Your task to perform on an android device: choose inbox layout in the gmail app Image 0: 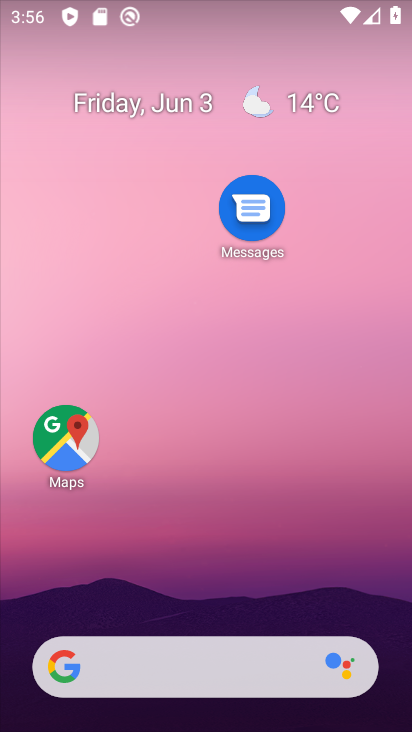
Step 0: drag from (197, 588) to (281, 119)
Your task to perform on an android device: choose inbox layout in the gmail app Image 1: 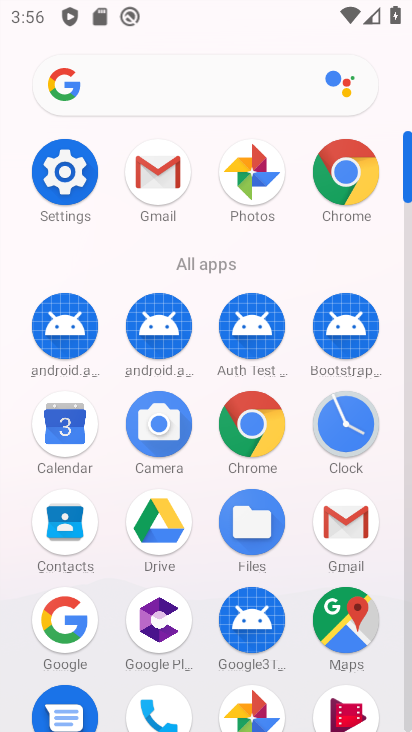
Step 1: click (156, 183)
Your task to perform on an android device: choose inbox layout in the gmail app Image 2: 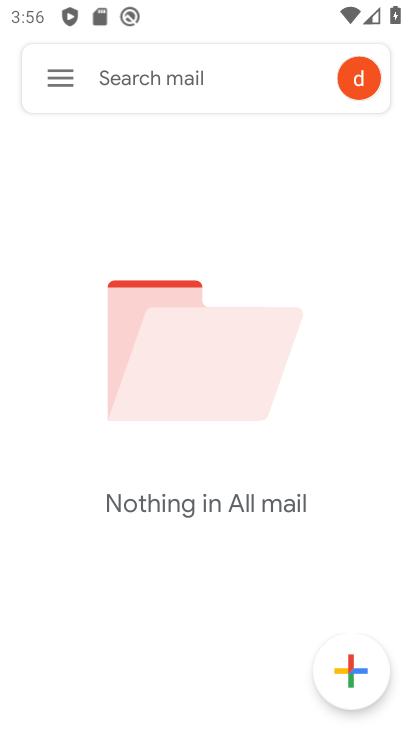
Step 2: click (60, 73)
Your task to perform on an android device: choose inbox layout in the gmail app Image 3: 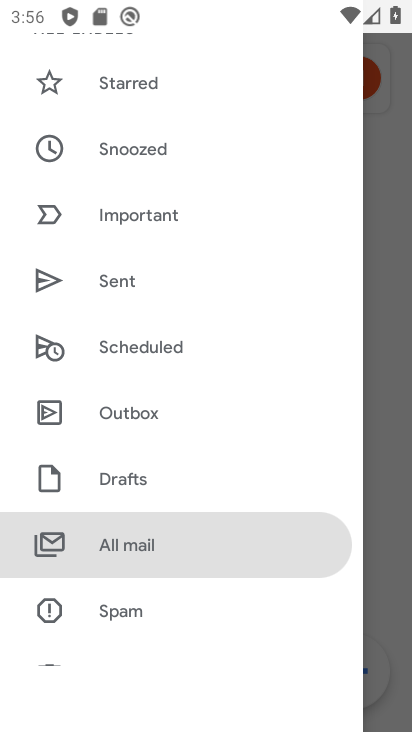
Step 3: click (183, 263)
Your task to perform on an android device: choose inbox layout in the gmail app Image 4: 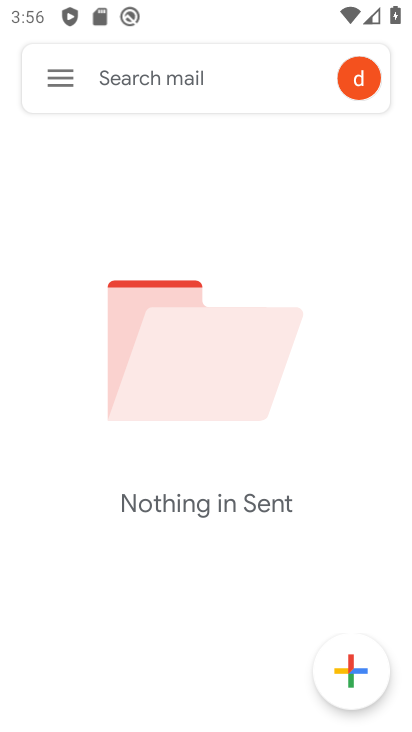
Step 4: click (66, 79)
Your task to perform on an android device: choose inbox layout in the gmail app Image 5: 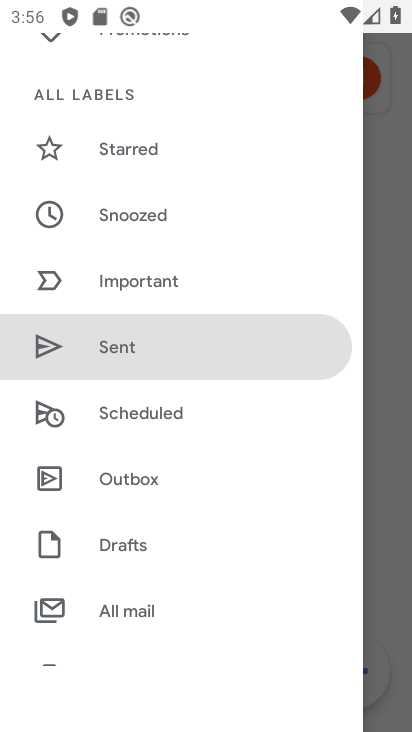
Step 5: drag from (178, 460) to (217, 284)
Your task to perform on an android device: choose inbox layout in the gmail app Image 6: 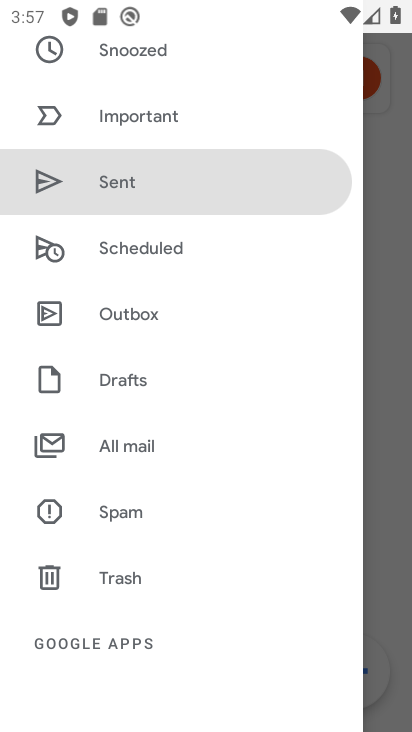
Step 6: drag from (163, 533) to (239, 95)
Your task to perform on an android device: choose inbox layout in the gmail app Image 7: 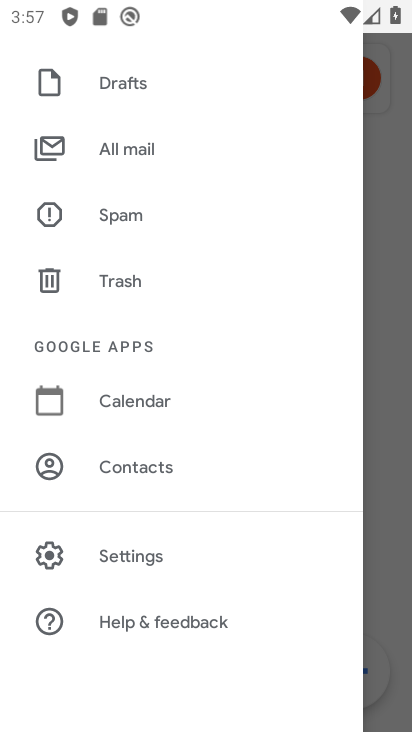
Step 7: click (106, 558)
Your task to perform on an android device: choose inbox layout in the gmail app Image 8: 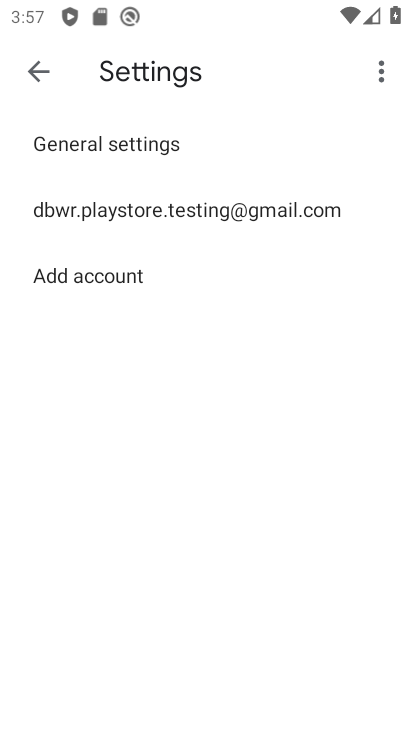
Step 8: click (225, 215)
Your task to perform on an android device: choose inbox layout in the gmail app Image 9: 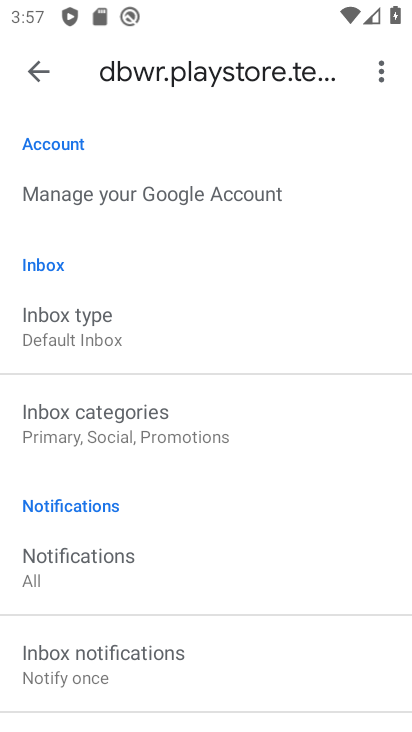
Step 9: drag from (175, 649) to (201, 422)
Your task to perform on an android device: choose inbox layout in the gmail app Image 10: 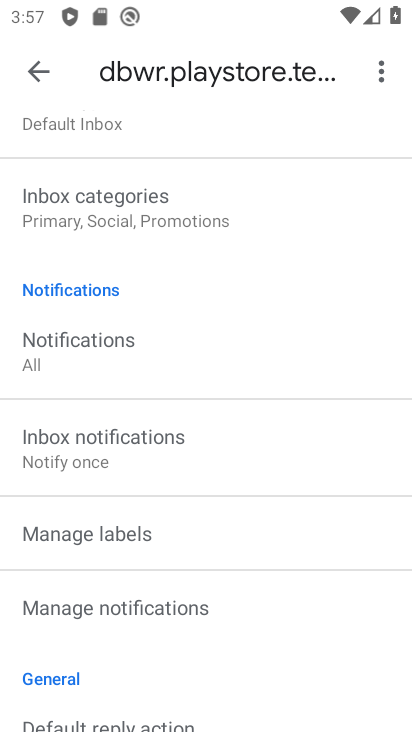
Step 10: drag from (182, 586) to (239, 351)
Your task to perform on an android device: choose inbox layout in the gmail app Image 11: 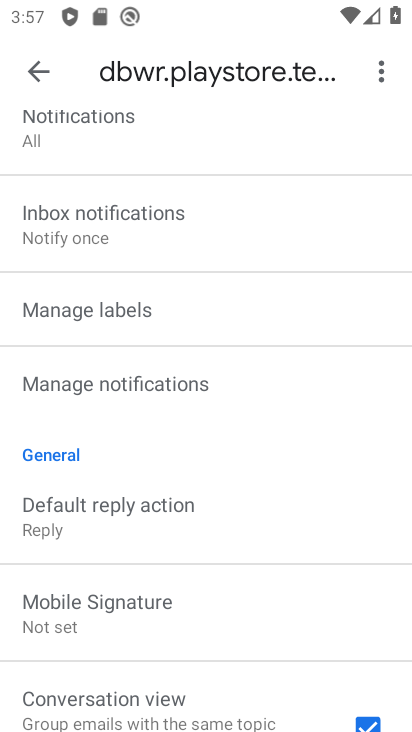
Step 11: drag from (139, 590) to (161, 307)
Your task to perform on an android device: choose inbox layout in the gmail app Image 12: 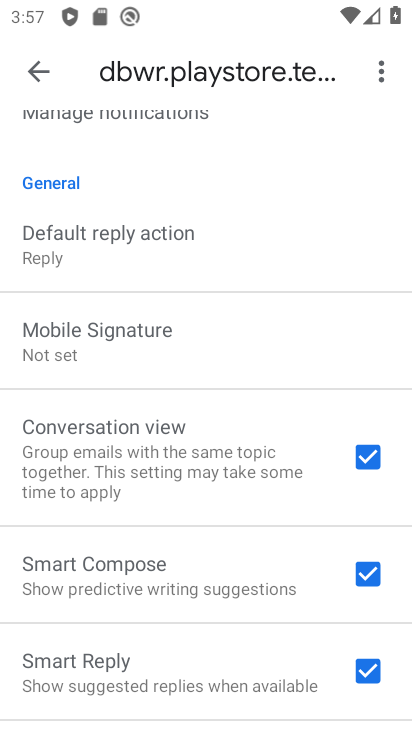
Step 12: drag from (157, 611) to (196, 196)
Your task to perform on an android device: choose inbox layout in the gmail app Image 13: 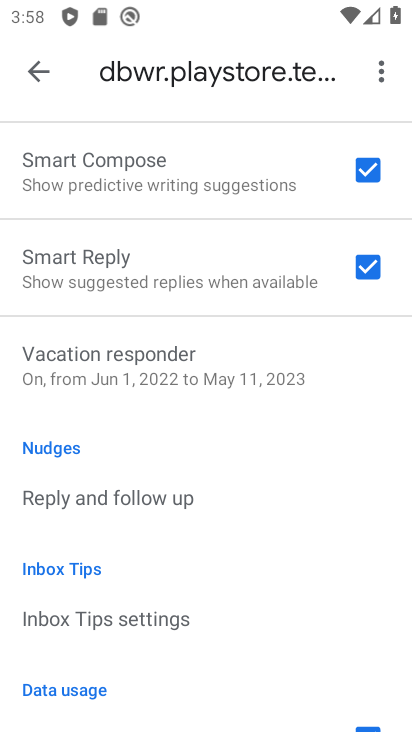
Step 13: drag from (157, 217) to (111, 415)
Your task to perform on an android device: choose inbox layout in the gmail app Image 14: 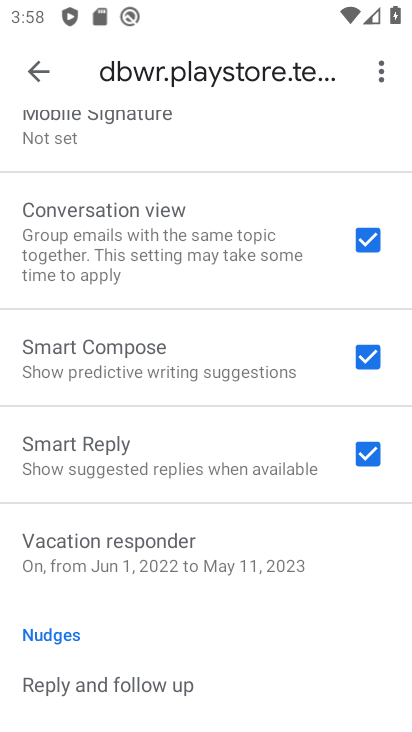
Step 14: drag from (168, 159) to (144, 413)
Your task to perform on an android device: choose inbox layout in the gmail app Image 15: 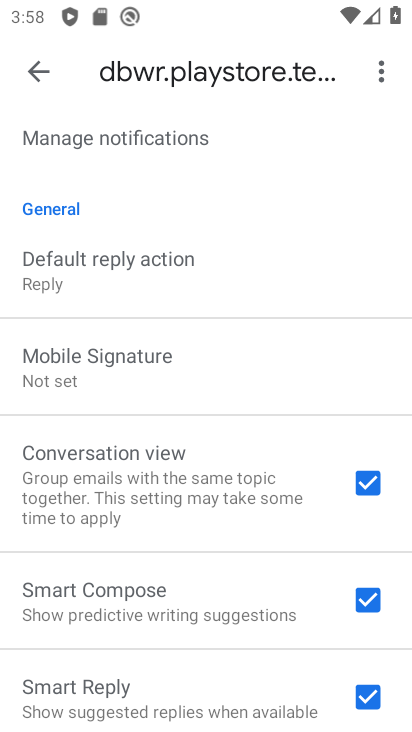
Step 15: drag from (182, 199) to (136, 402)
Your task to perform on an android device: choose inbox layout in the gmail app Image 16: 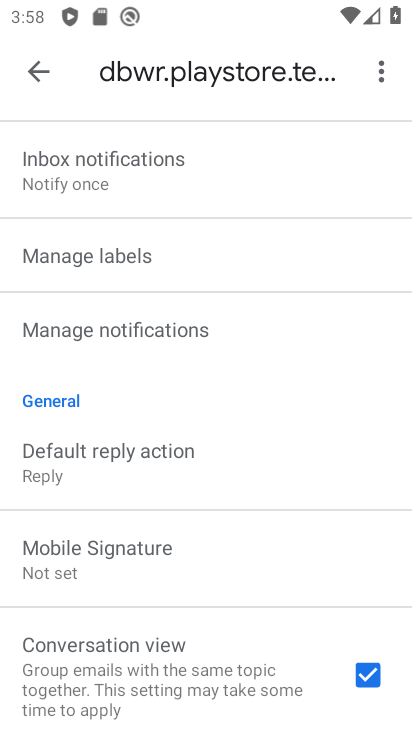
Step 16: drag from (165, 303) to (137, 513)
Your task to perform on an android device: choose inbox layout in the gmail app Image 17: 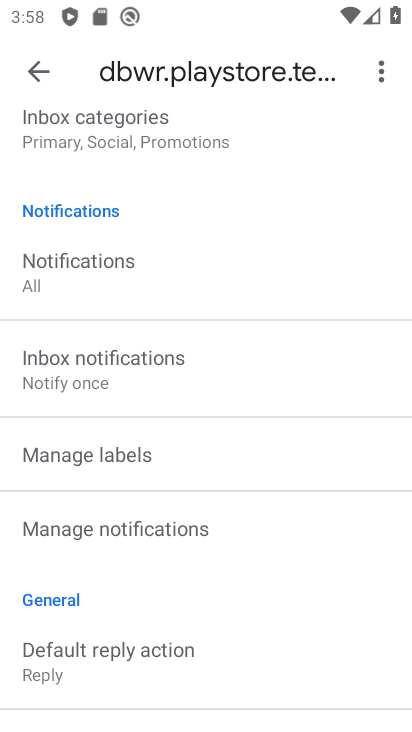
Step 17: drag from (151, 191) to (136, 466)
Your task to perform on an android device: choose inbox layout in the gmail app Image 18: 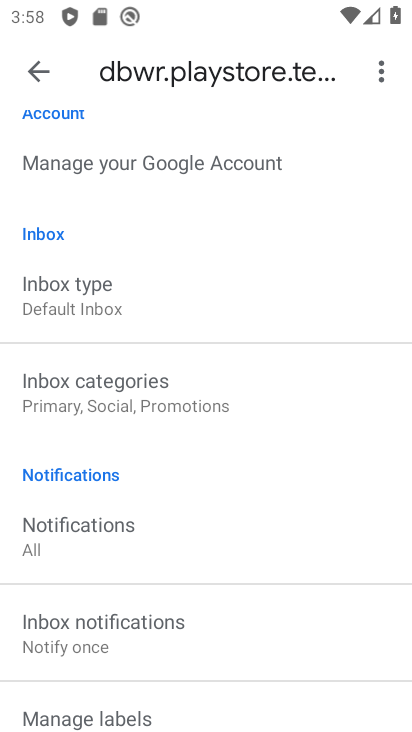
Step 18: drag from (112, 174) to (88, 324)
Your task to perform on an android device: choose inbox layout in the gmail app Image 19: 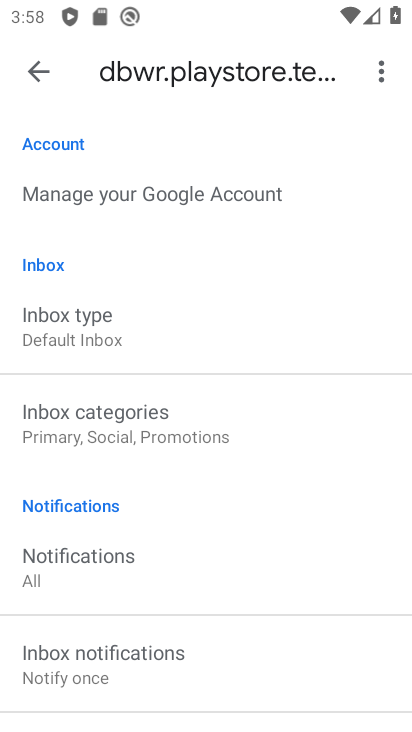
Step 19: drag from (104, 278) to (102, 325)
Your task to perform on an android device: choose inbox layout in the gmail app Image 20: 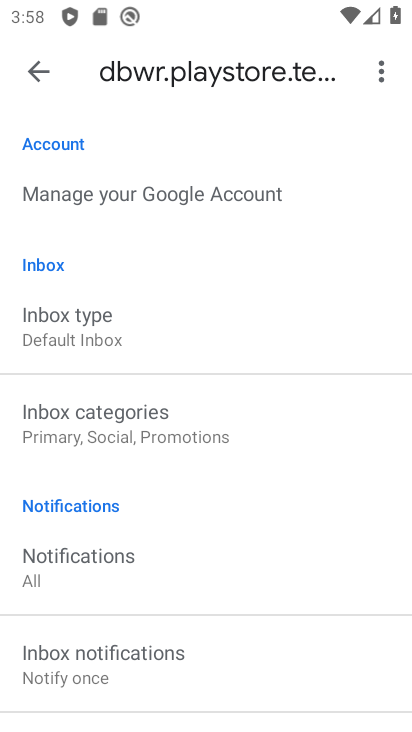
Step 20: click (92, 318)
Your task to perform on an android device: choose inbox layout in the gmail app Image 21: 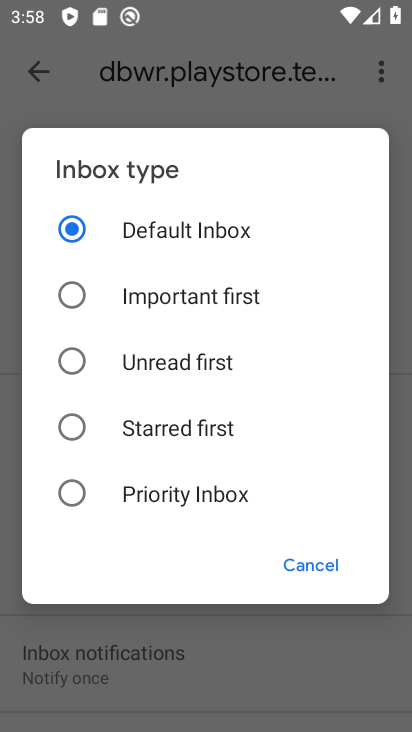
Step 21: click (76, 303)
Your task to perform on an android device: choose inbox layout in the gmail app Image 22: 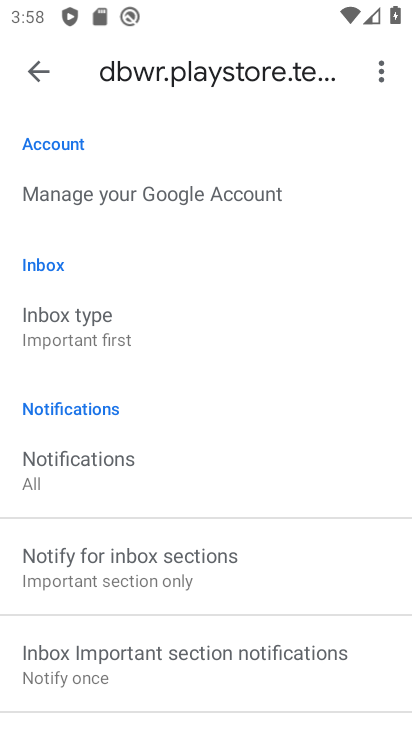
Step 22: task complete